Your task to perform on an android device: see tabs open on other devices in the chrome app Image 0: 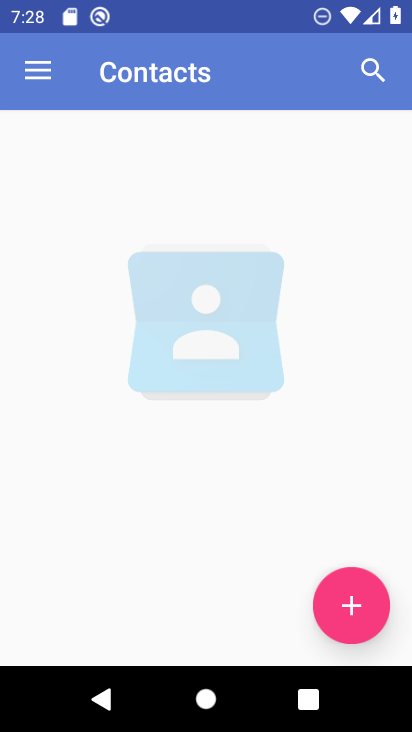
Step 0: drag from (216, 577) to (219, 91)
Your task to perform on an android device: see tabs open on other devices in the chrome app Image 1: 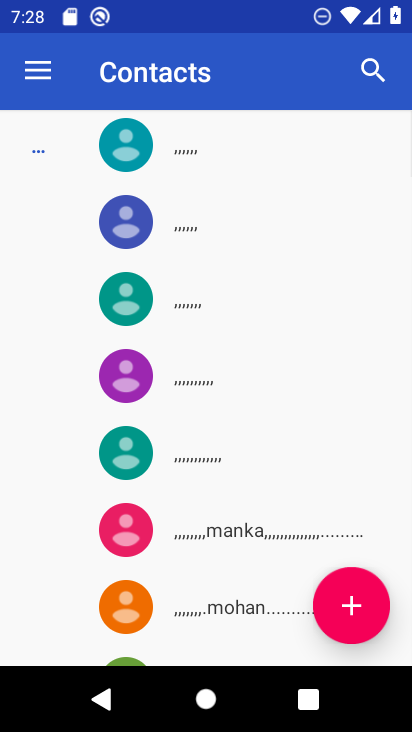
Step 1: press home button
Your task to perform on an android device: see tabs open on other devices in the chrome app Image 2: 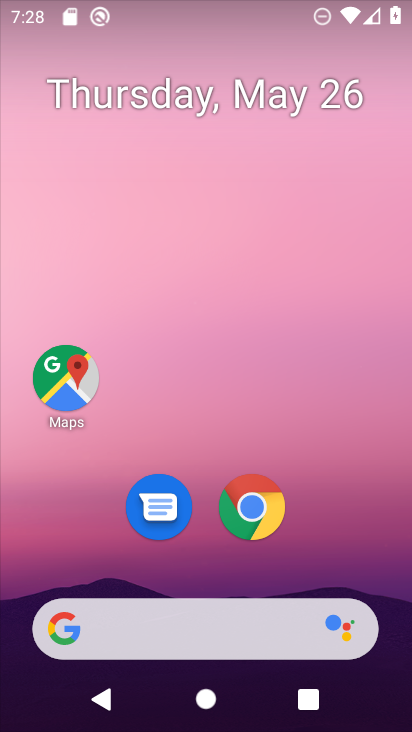
Step 2: drag from (194, 568) to (191, 120)
Your task to perform on an android device: see tabs open on other devices in the chrome app Image 3: 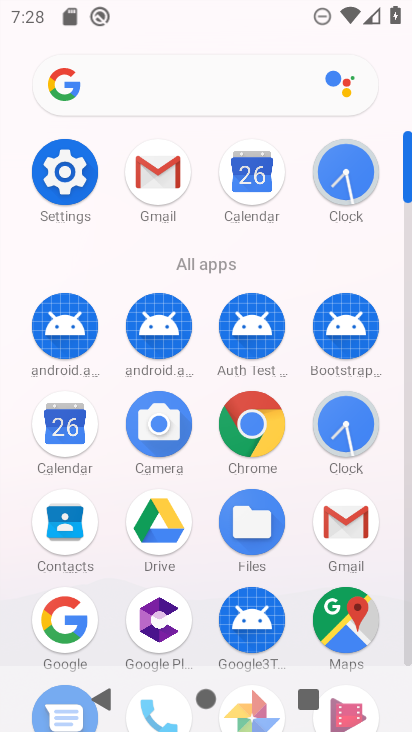
Step 3: click (55, 180)
Your task to perform on an android device: see tabs open on other devices in the chrome app Image 4: 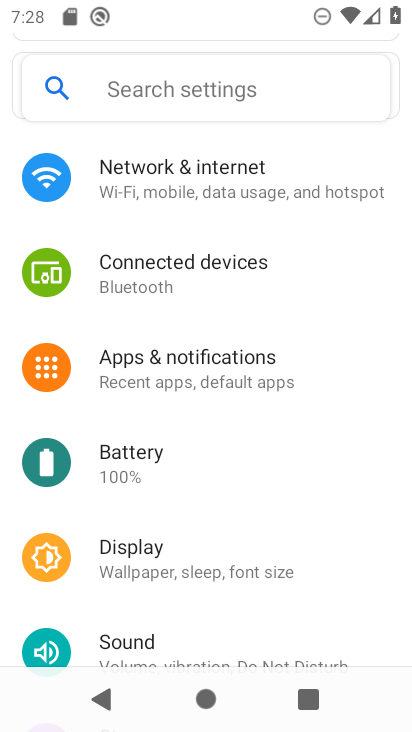
Step 4: press home button
Your task to perform on an android device: see tabs open on other devices in the chrome app Image 5: 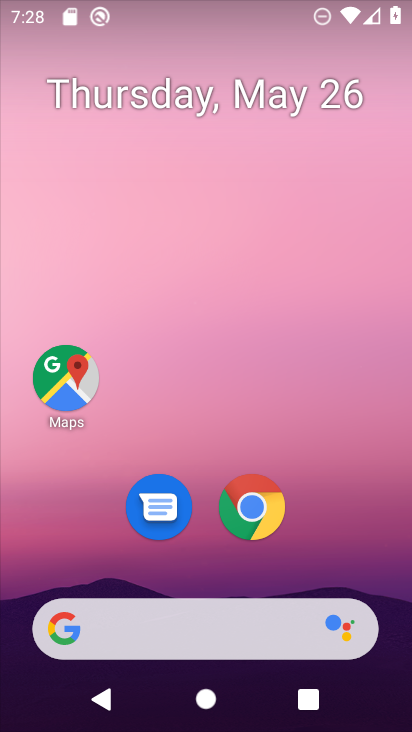
Step 5: click (265, 505)
Your task to perform on an android device: see tabs open on other devices in the chrome app Image 6: 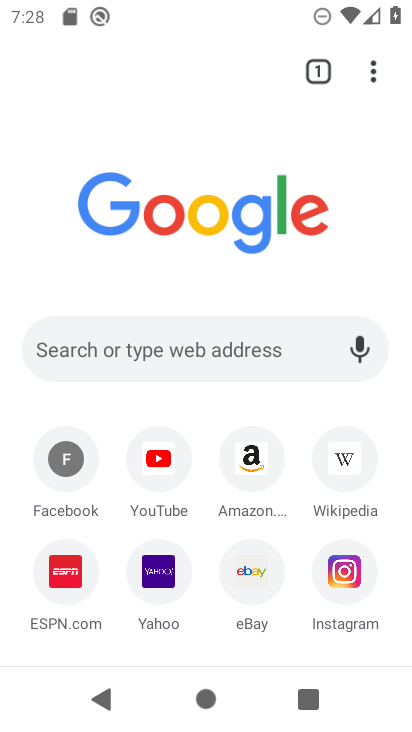
Step 6: click (373, 70)
Your task to perform on an android device: see tabs open on other devices in the chrome app Image 7: 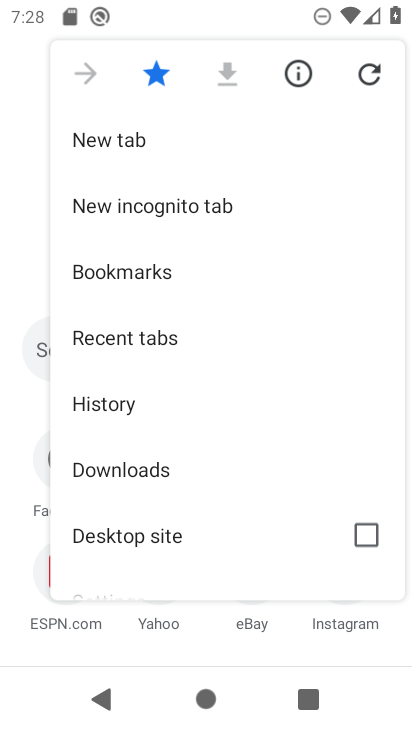
Step 7: click (140, 346)
Your task to perform on an android device: see tabs open on other devices in the chrome app Image 8: 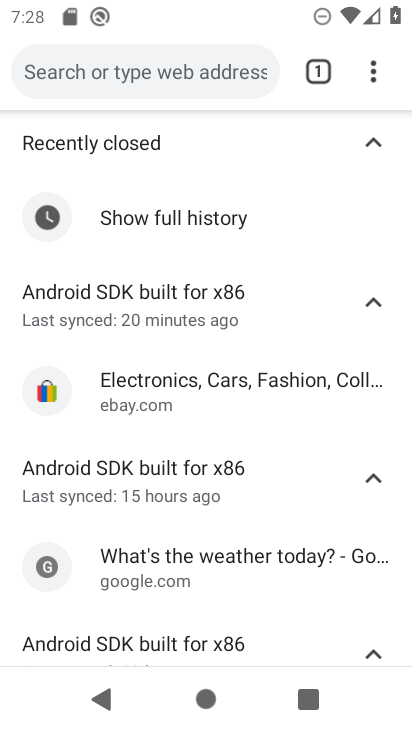
Step 8: task complete